Your task to perform on an android device: Search for seafood restaurants on Google Maps Image 0: 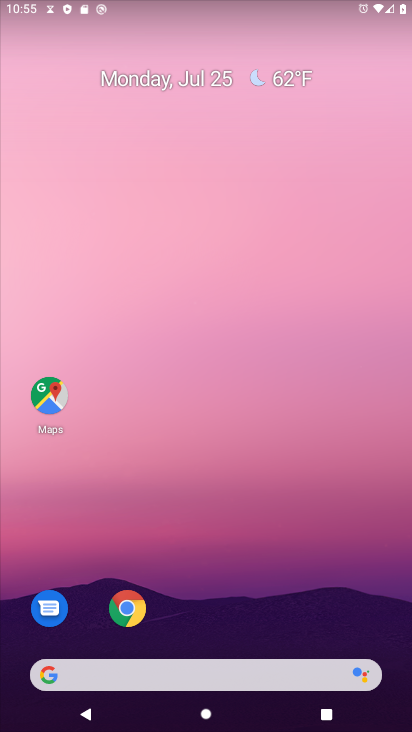
Step 0: click (52, 395)
Your task to perform on an android device: Search for seafood restaurants on Google Maps Image 1: 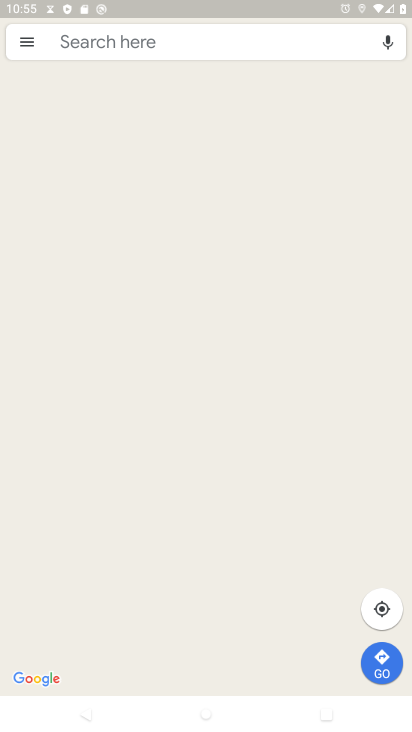
Step 1: click (204, 45)
Your task to perform on an android device: Search for seafood restaurants on Google Maps Image 2: 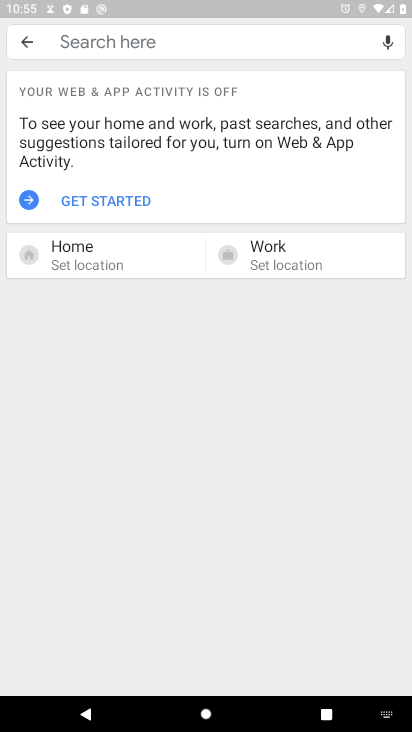
Step 2: type "seafood restaurants"
Your task to perform on an android device: Search for seafood restaurants on Google Maps Image 3: 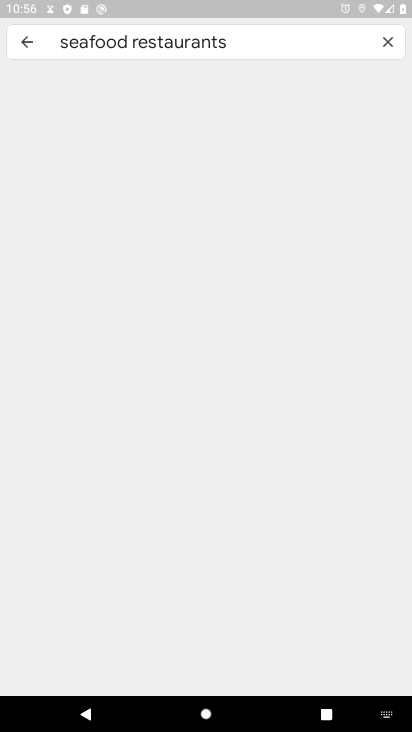
Step 3: task complete